Your task to perform on an android device: turn on showing notifications on the lock screen Image 0: 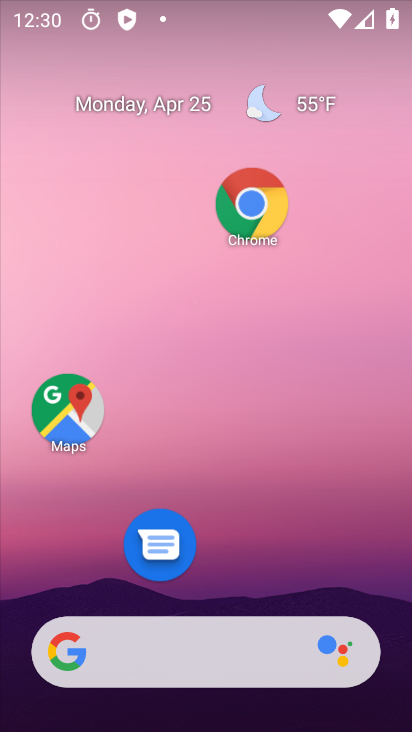
Step 0: drag from (267, 667) to (323, 142)
Your task to perform on an android device: turn on showing notifications on the lock screen Image 1: 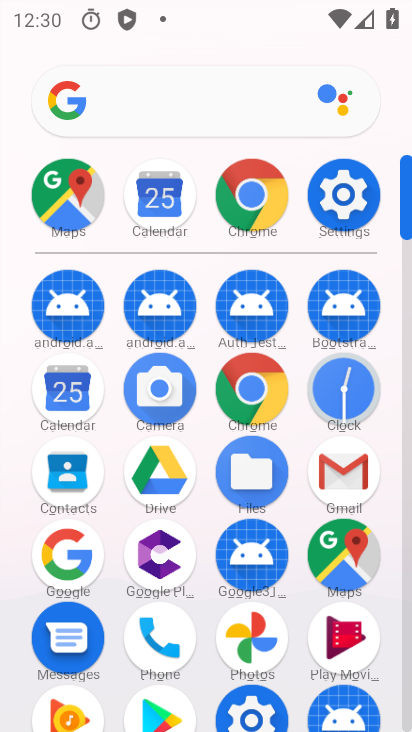
Step 1: click (346, 200)
Your task to perform on an android device: turn on showing notifications on the lock screen Image 2: 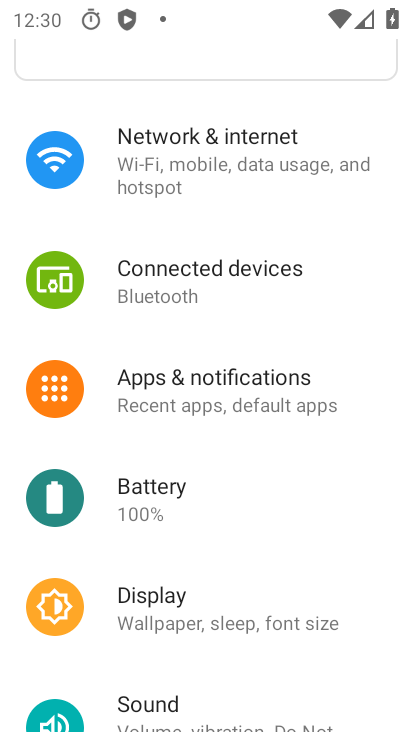
Step 2: click (247, 63)
Your task to perform on an android device: turn on showing notifications on the lock screen Image 3: 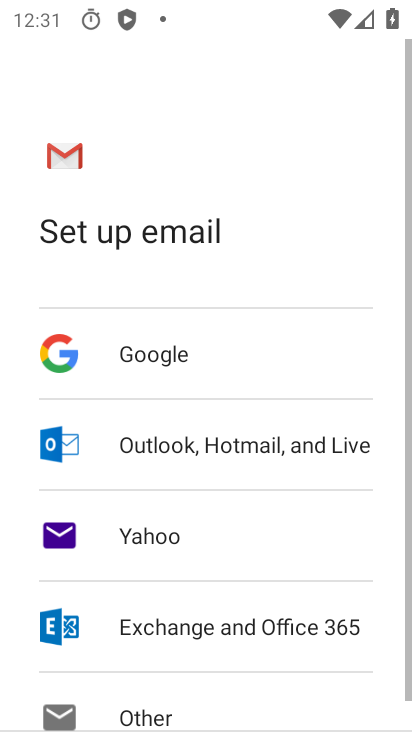
Step 3: press back button
Your task to perform on an android device: turn on showing notifications on the lock screen Image 4: 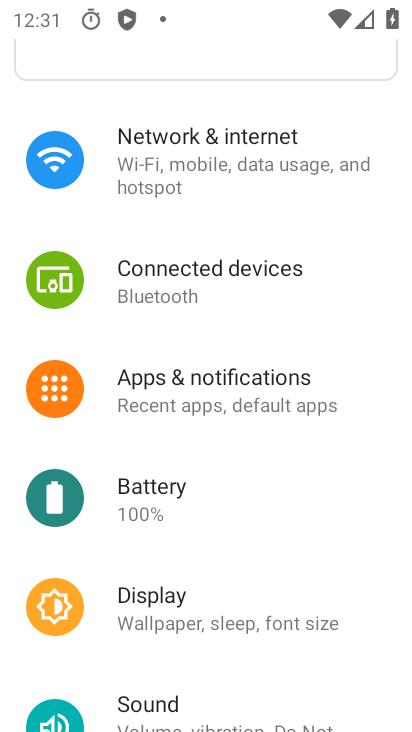
Step 4: drag from (183, 162) to (174, 276)
Your task to perform on an android device: turn on showing notifications on the lock screen Image 5: 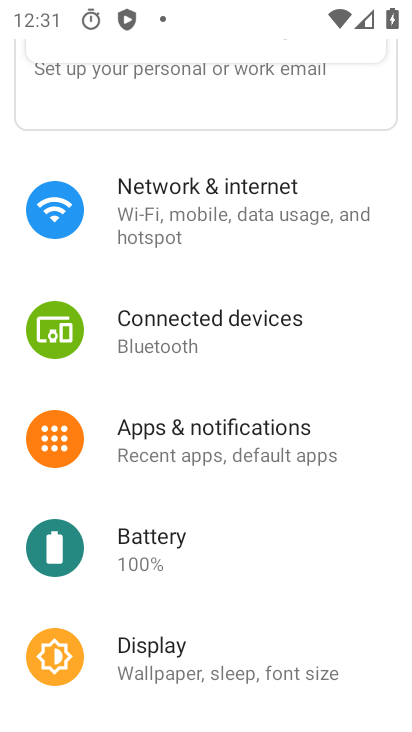
Step 5: drag from (173, 141) to (184, 291)
Your task to perform on an android device: turn on showing notifications on the lock screen Image 6: 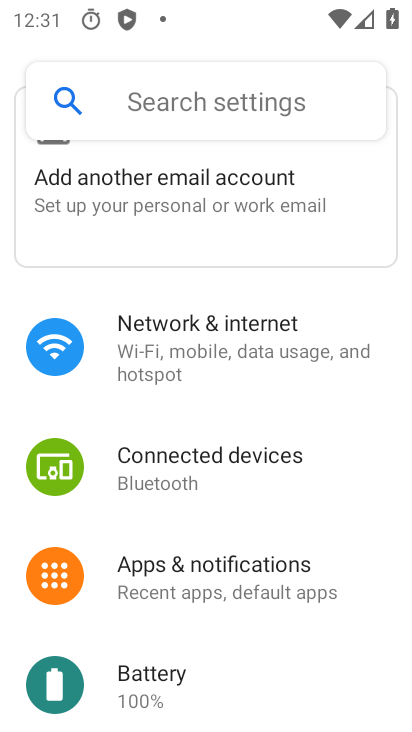
Step 6: click (198, 113)
Your task to perform on an android device: turn on showing notifications on the lock screen Image 7: 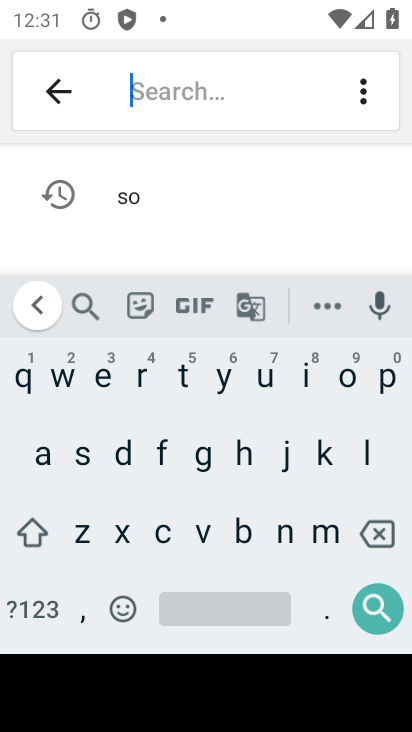
Step 7: click (363, 456)
Your task to perform on an android device: turn on showing notifications on the lock screen Image 8: 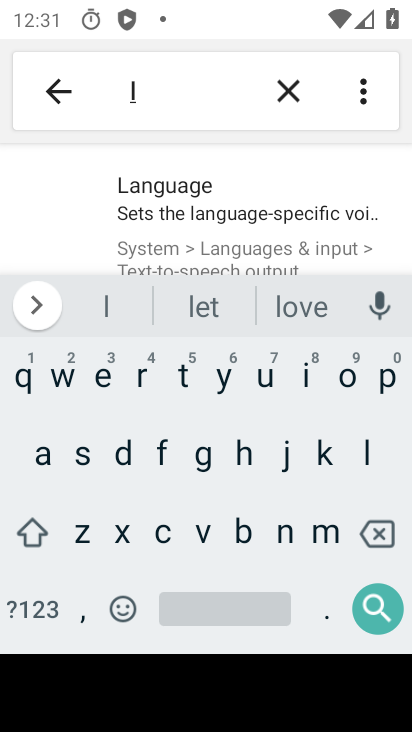
Step 8: click (347, 387)
Your task to perform on an android device: turn on showing notifications on the lock screen Image 9: 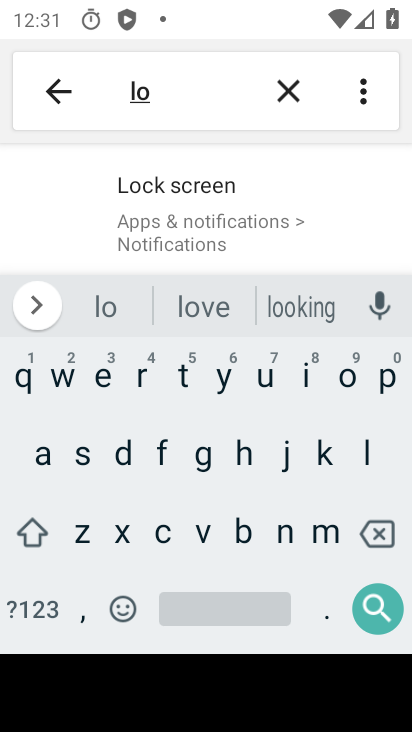
Step 9: click (191, 218)
Your task to perform on an android device: turn on showing notifications on the lock screen Image 10: 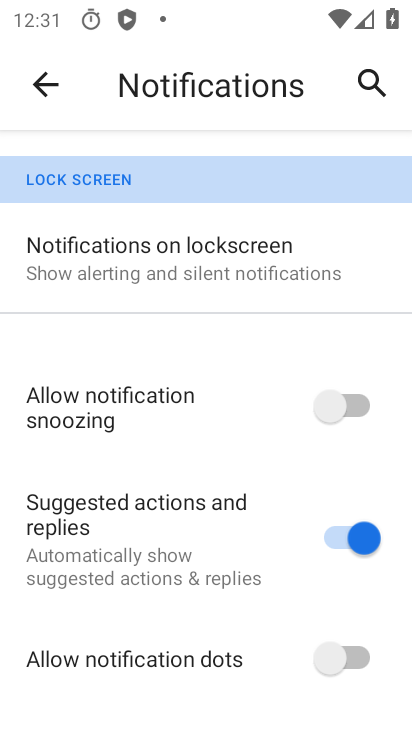
Step 10: click (171, 260)
Your task to perform on an android device: turn on showing notifications on the lock screen Image 11: 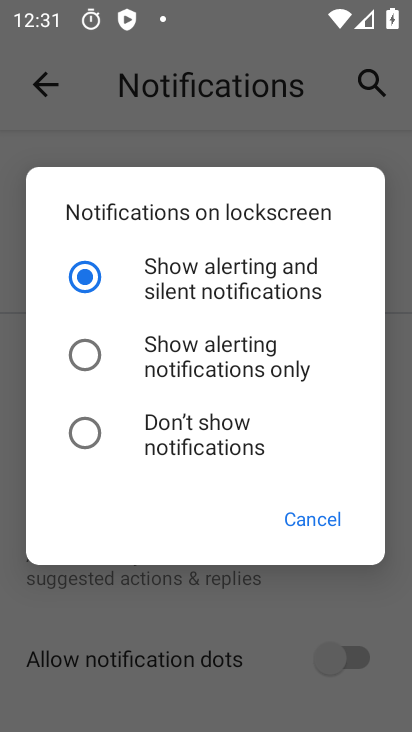
Step 11: task complete